Your task to perform on an android device: Open the calendar app, open the side menu, and click the "Day" option Image 0: 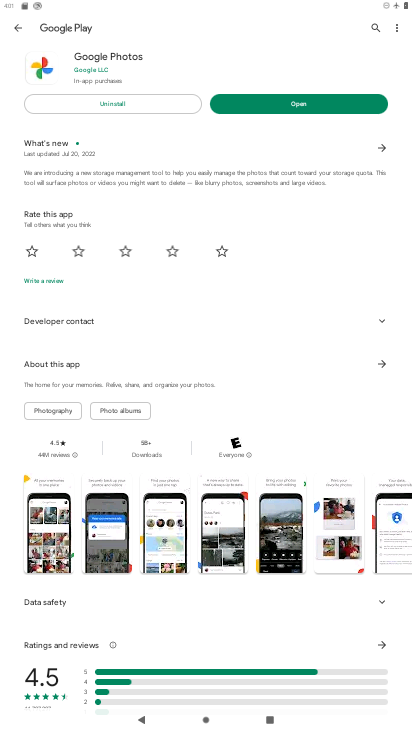
Step 0: press home button
Your task to perform on an android device: Open the calendar app, open the side menu, and click the "Day" option Image 1: 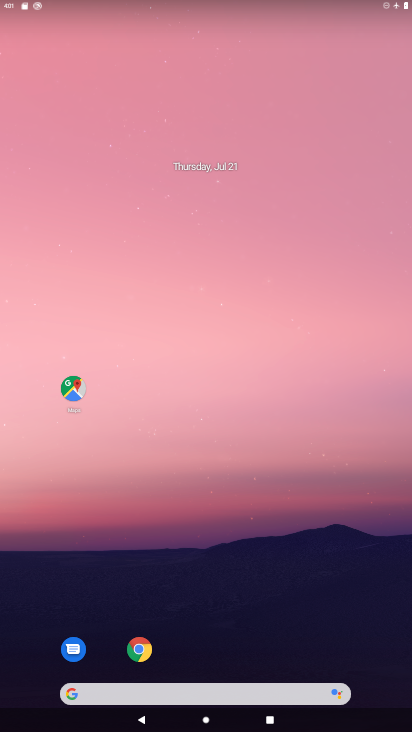
Step 1: drag from (274, 594) to (201, 70)
Your task to perform on an android device: Open the calendar app, open the side menu, and click the "Day" option Image 2: 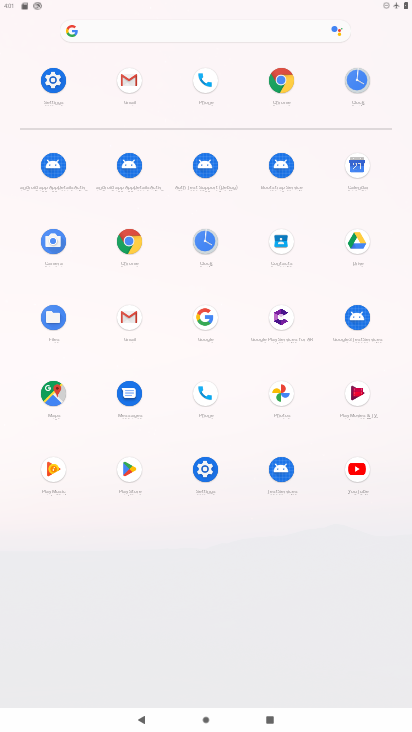
Step 2: click (355, 171)
Your task to perform on an android device: Open the calendar app, open the side menu, and click the "Day" option Image 3: 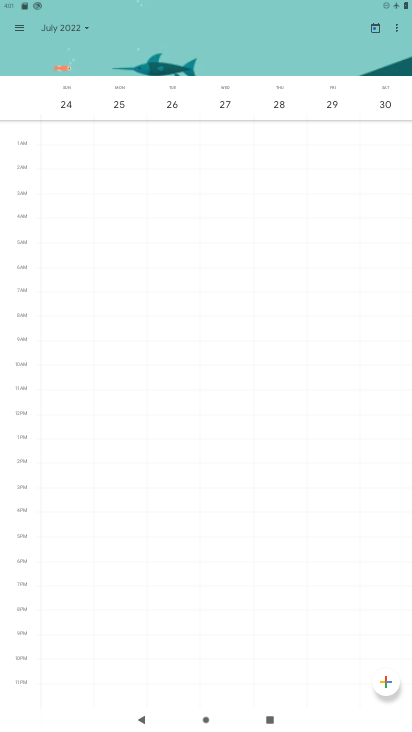
Step 3: click (16, 29)
Your task to perform on an android device: Open the calendar app, open the side menu, and click the "Day" option Image 4: 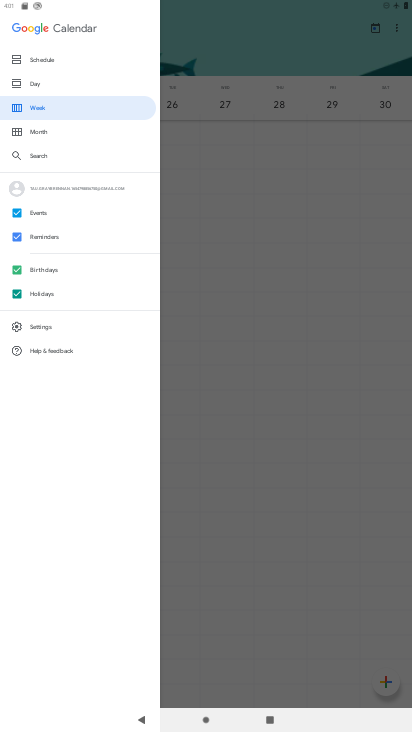
Step 4: click (36, 84)
Your task to perform on an android device: Open the calendar app, open the side menu, and click the "Day" option Image 5: 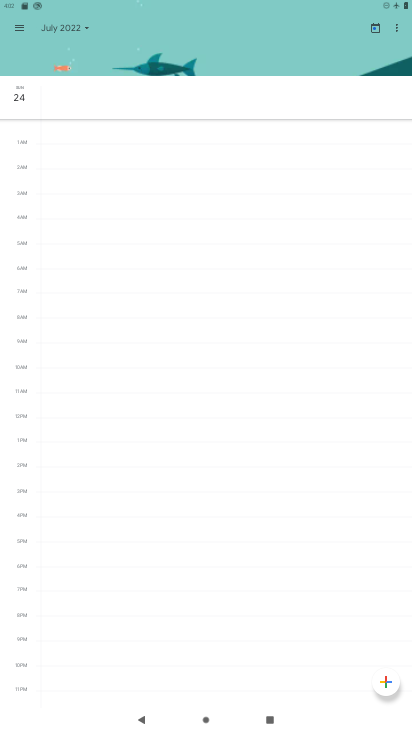
Step 5: task complete